Your task to perform on an android device: Open Maps and search for coffee Image 0: 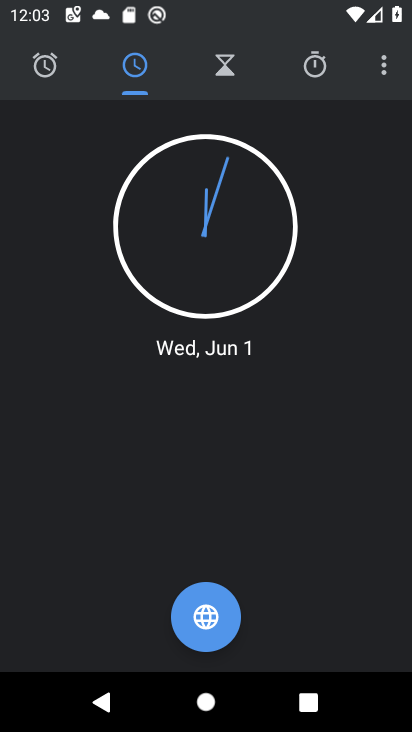
Step 0: press home button
Your task to perform on an android device: Open Maps and search for coffee Image 1: 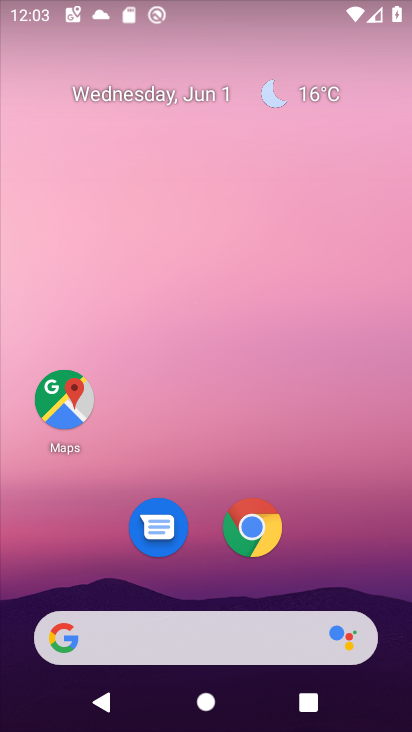
Step 1: click (63, 413)
Your task to perform on an android device: Open Maps and search for coffee Image 2: 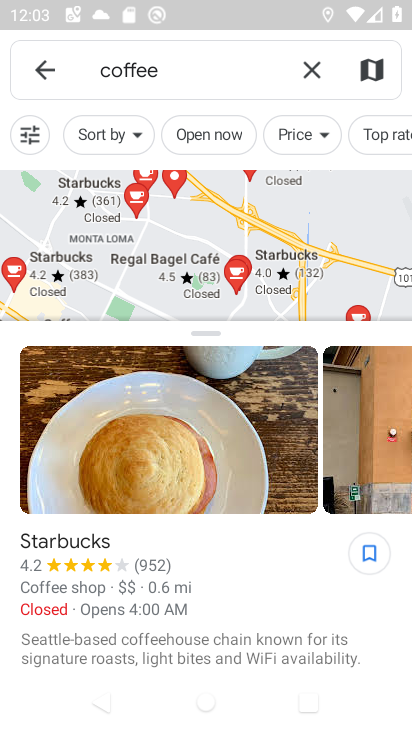
Step 2: task complete